Your task to perform on an android device: Open Youtube and go to "Your channel" Image 0: 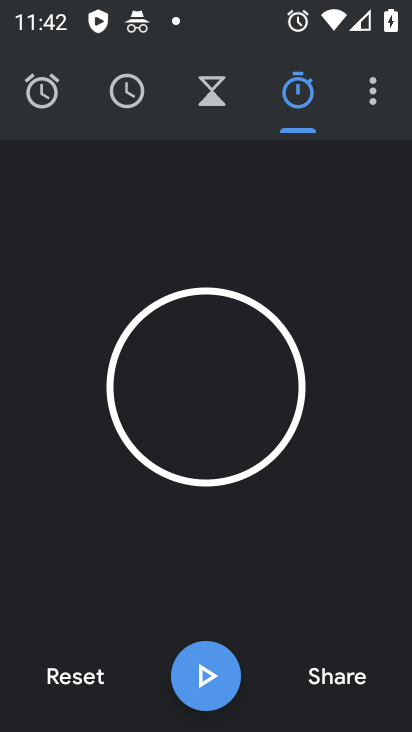
Step 0: press home button
Your task to perform on an android device: Open Youtube and go to "Your channel" Image 1: 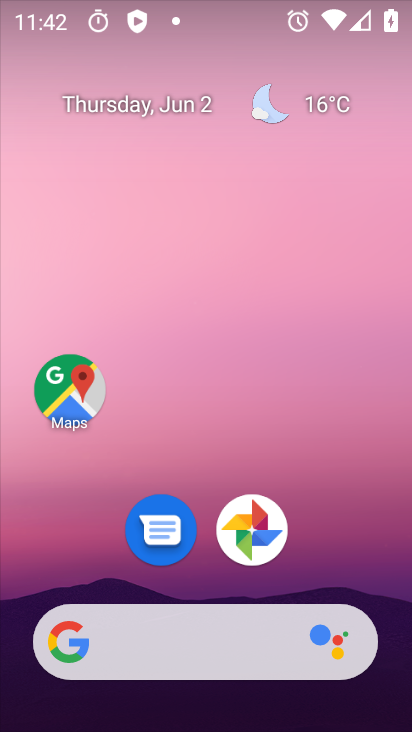
Step 1: drag from (262, 597) to (219, 77)
Your task to perform on an android device: Open Youtube and go to "Your channel" Image 2: 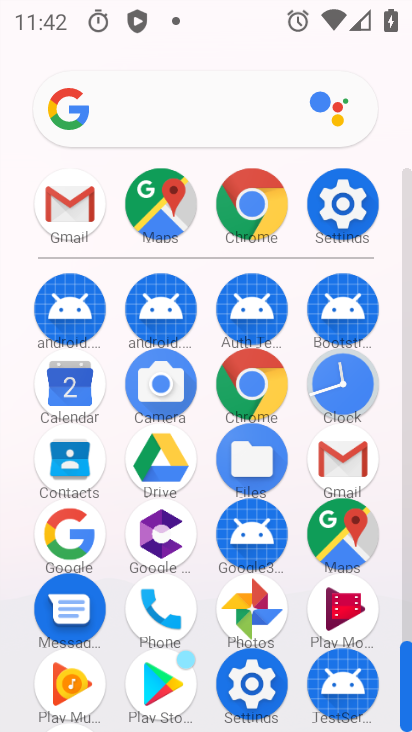
Step 2: drag from (234, 593) to (168, 354)
Your task to perform on an android device: Open Youtube and go to "Your channel" Image 3: 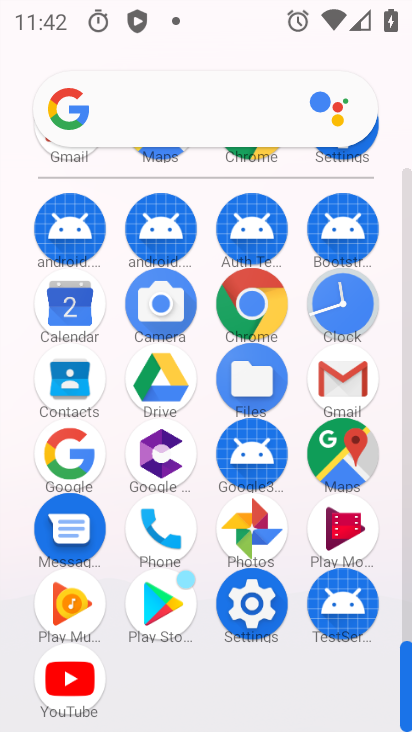
Step 3: drag from (193, 520) to (215, 203)
Your task to perform on an android device: Open Youtube and go to "Your channel" Image 4: 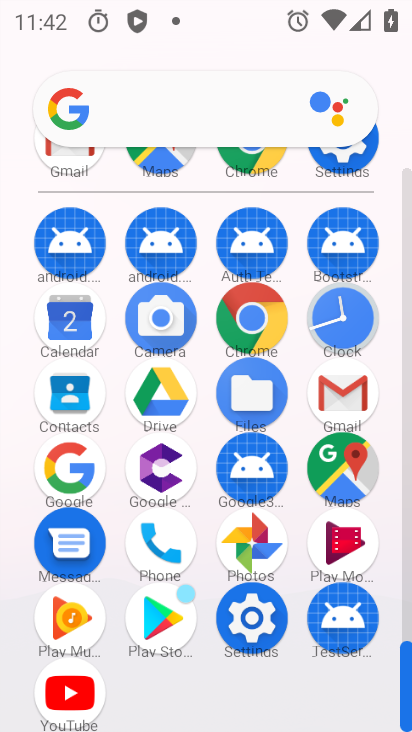
Step 4: click (75, 702)
Your task to perform on an android device: Open Youtube and go to "Your channel" Image 5: 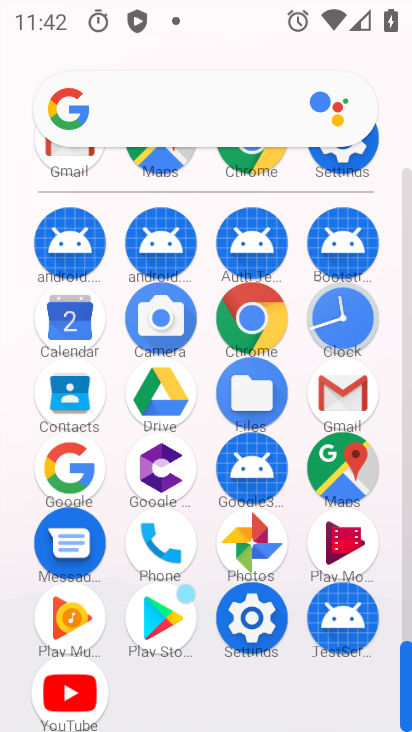
Step 5: click (75, 702)
Your task to perform on an android device: Open Youtube and go to "Your channel" Image 6: 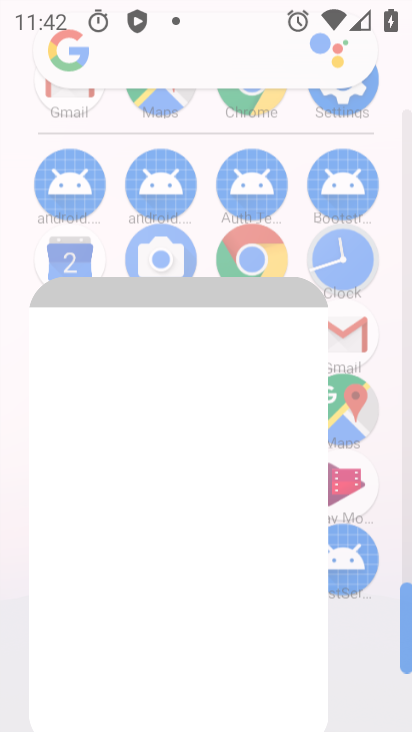
Step 6: click (75, 702)
Your task to perform on an android device: Open Youtube and go to "Your channel" Image 7: 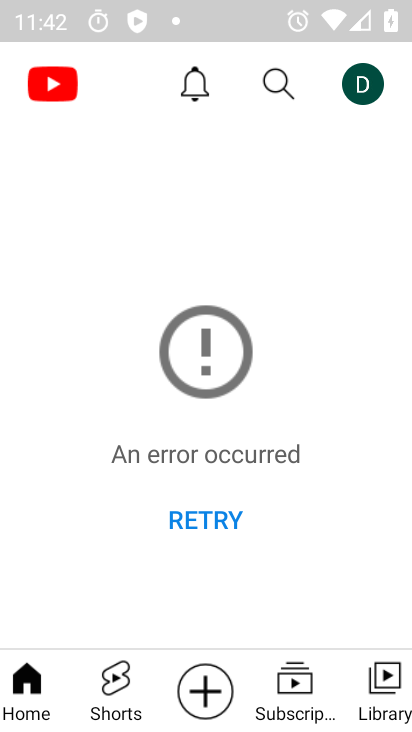
Step 7: task complete